Your task to perform on an android device: Search for top rated burger restaurants on Maps Image 0: 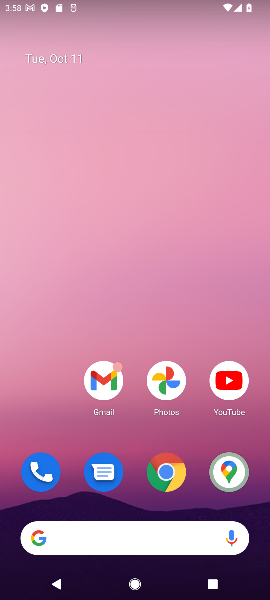
Step 0: click (144, 538)
Your task to perform on an android device: Search for top rated burger restaurants on Maps Image 1: 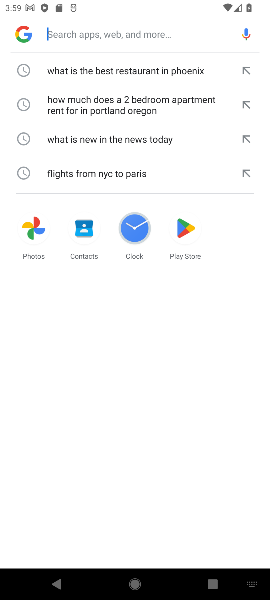
Step 1: type "Search for top rated burger restaurants on Maps"
Your task to perform on an android device: Search for top rated burger restaurants on Maps Image 2: 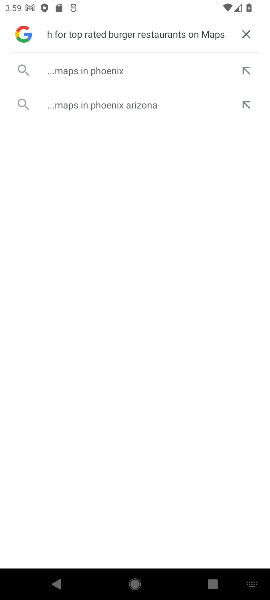
Step 2: click (80, 71)
Your task to perform on an android device: Search for top rated burger restaurants on Maps Image 3: 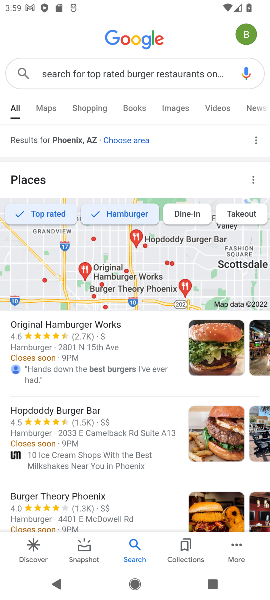
Step 3: task complete